Your task to perform on an android device: Clear all items from cart on costco. Search for sony triple a on costco, select the first entry, add it to the cart, then select checkout. Image 0: 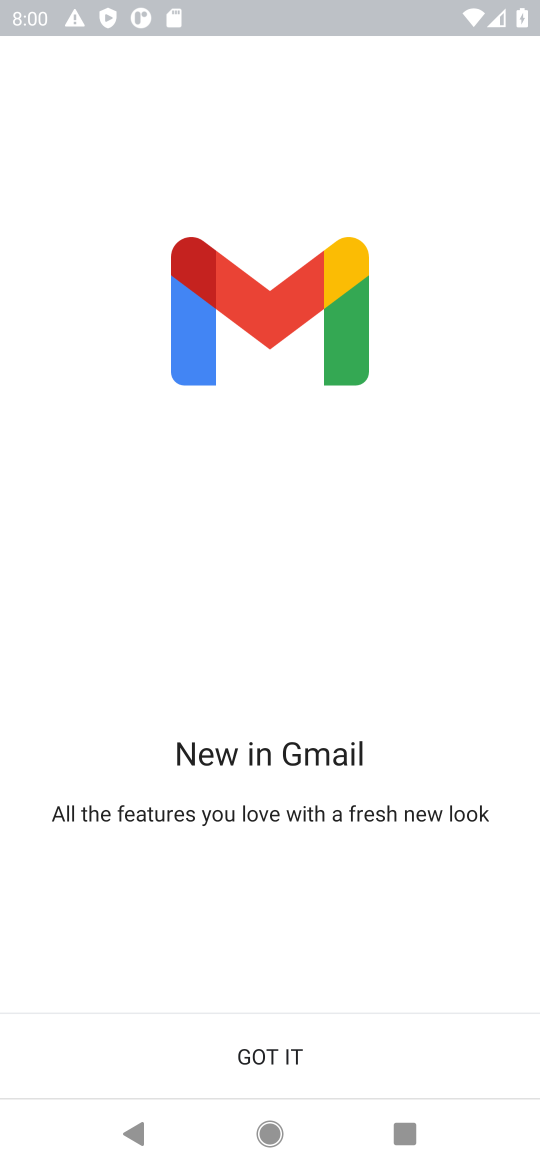
Step 0: click (319, 1030)
Your task to perform on an android device: Clear all items from cart on costco. Search for sony triple a on costco, select the first entry, add it to the cart, then select checkout. Image 1: 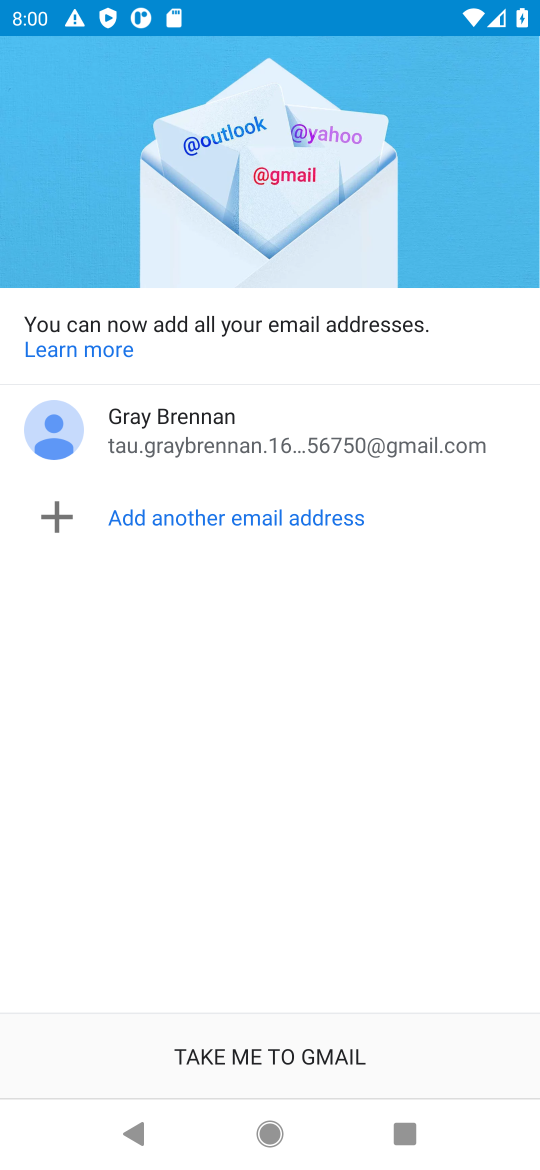
Step 1: press home button
Your task to perform on an android device: Clear all items from cart on costco. Search for sony triple a on costco, select the first entry, add it to the cart, then select checkout. Image 2: 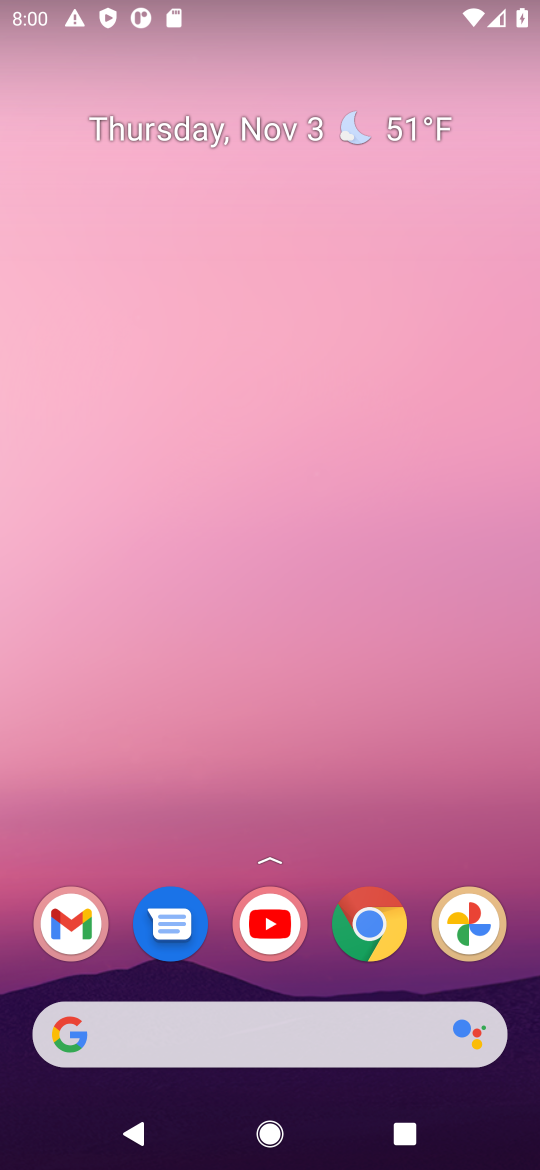
Step 2: drag from (257, 976) to (246, 162)
Your task to perform on an android device: Clear all items from cart on costco. Search for sony triple a on costco, select the first entry, add it to the cart, then select checkout. Image 3: 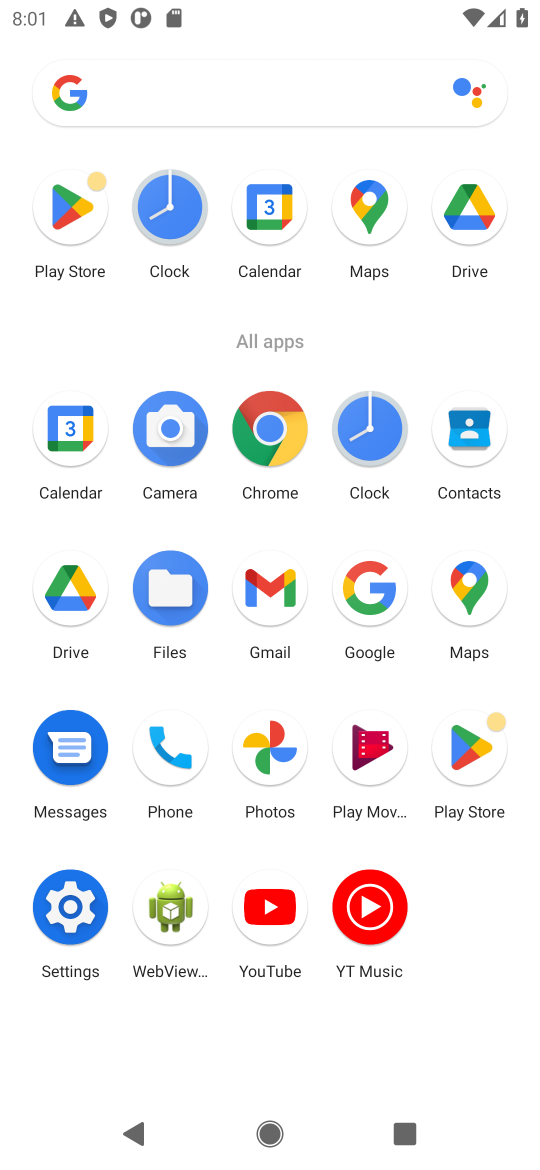
Step 3: click (358, 577)
Your task to perform on an android device: Clear all items from cart on costco. Search for sony triple a on costco, select the first entry, add it to the cart, then select checkout. Image 4: 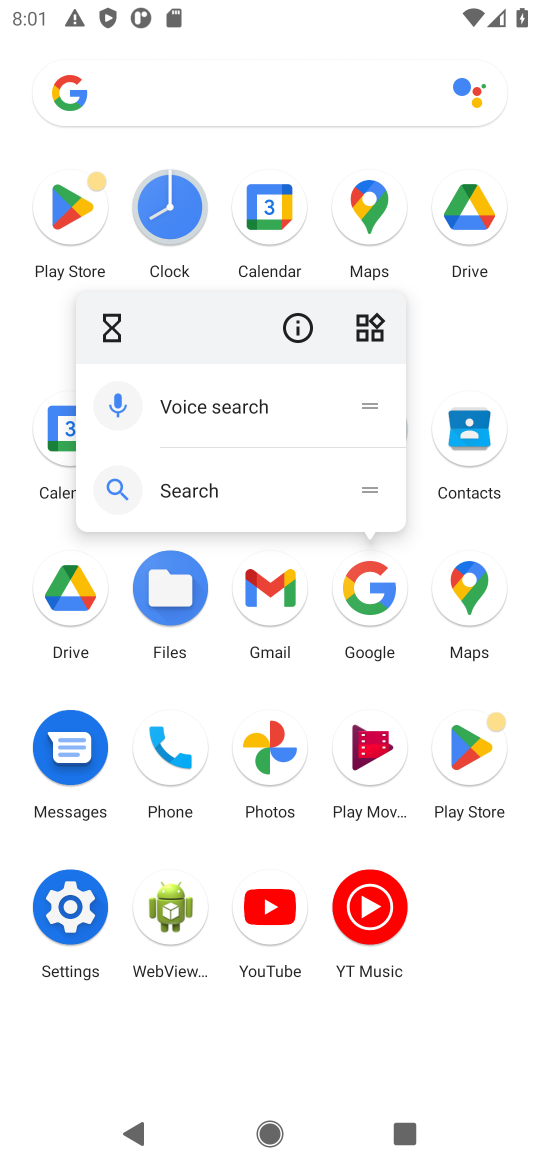
Step 4: click (358, 577)
Your task to perform on an android device: Clear all items from cart on costco. Search for sony triple a on costco, select the first entry, add it to the cart, then select checkout. Image 5: 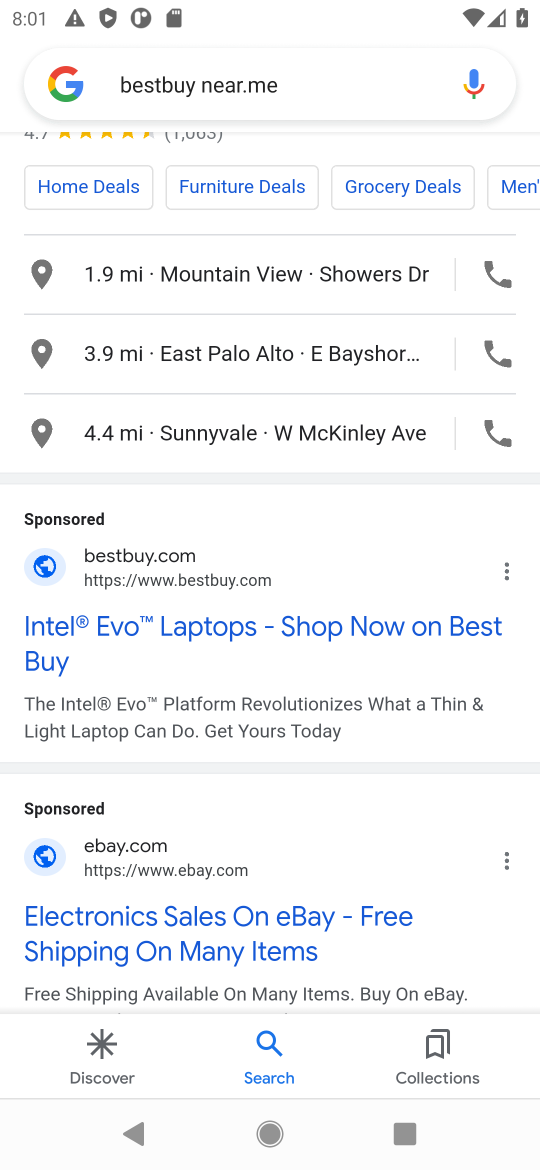
Step 5: click (168, 68)
Your task to perform on an android device: Clear all items from cart on costco. Search for sony triple a on costco, select the first entry, add it to the cart, then select checkout. Image 6: 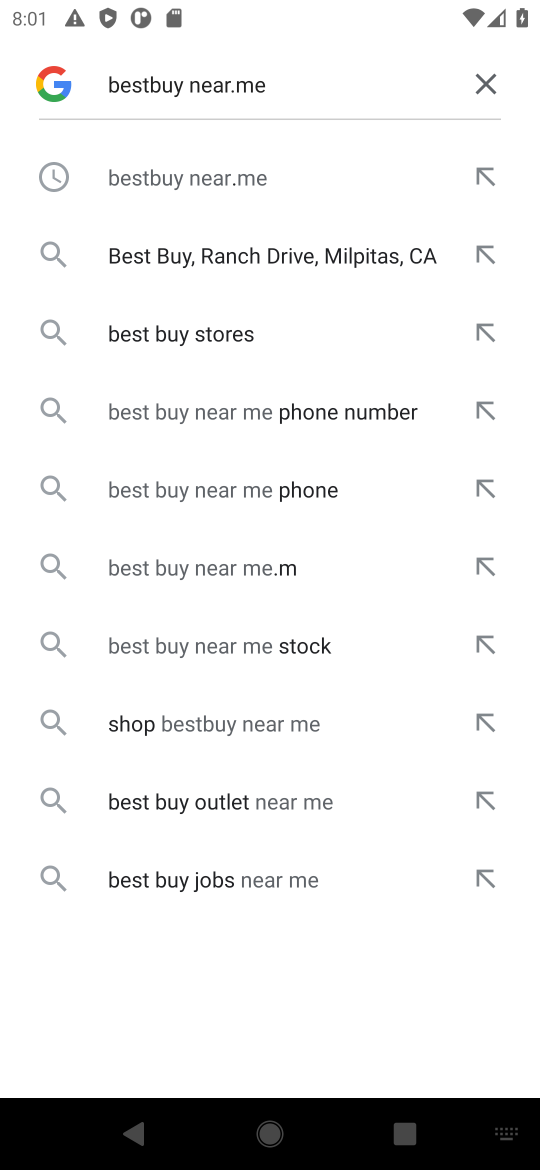
Step 6: click (495, 71)
Your task to perform on an android device: Clear all items from cart on costco. Search for sony triple a on costco, select the first entry, add it to the cart, then select checkout. Image 7: 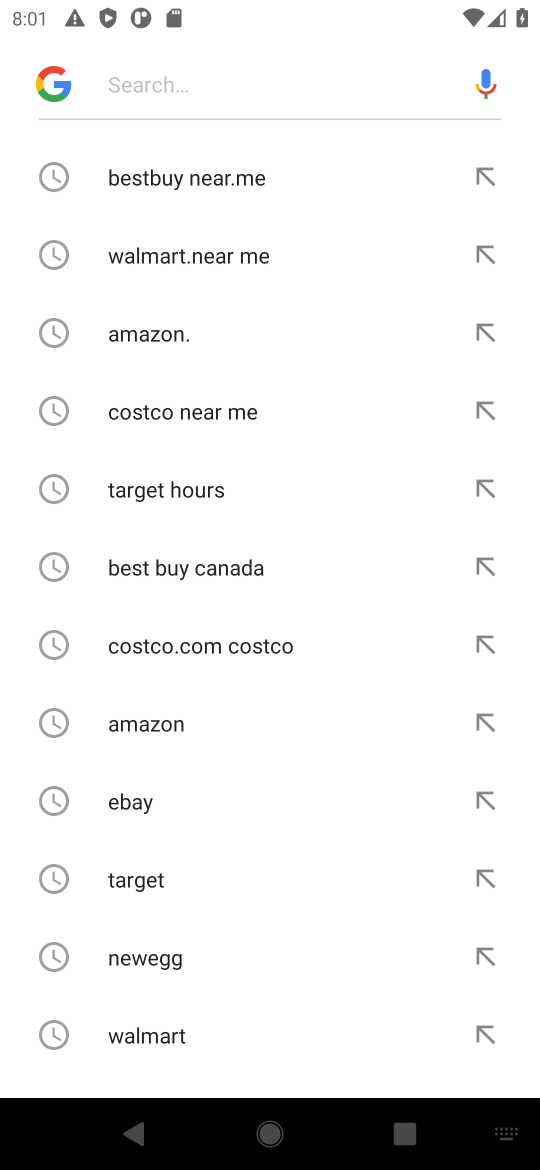
Step 7: click (149, 76)
Your task to perform on an android device: Clear all items from cart on costco. Search for sony triple a on costco, select the first entry, add it to the cart, then select checkout. Image 8: 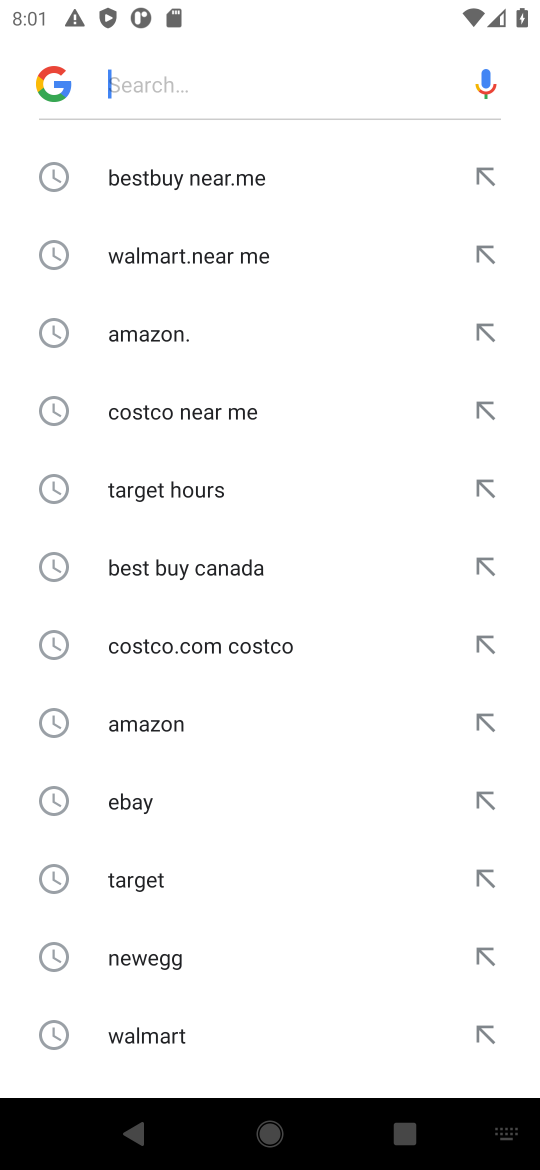
Step 8: type "costco "
Your task to perform on an android device: Clear all items from cart on costco. Search for sony triple a on costco, select the first entry, add it to the cart, then select checkout. Image 9: 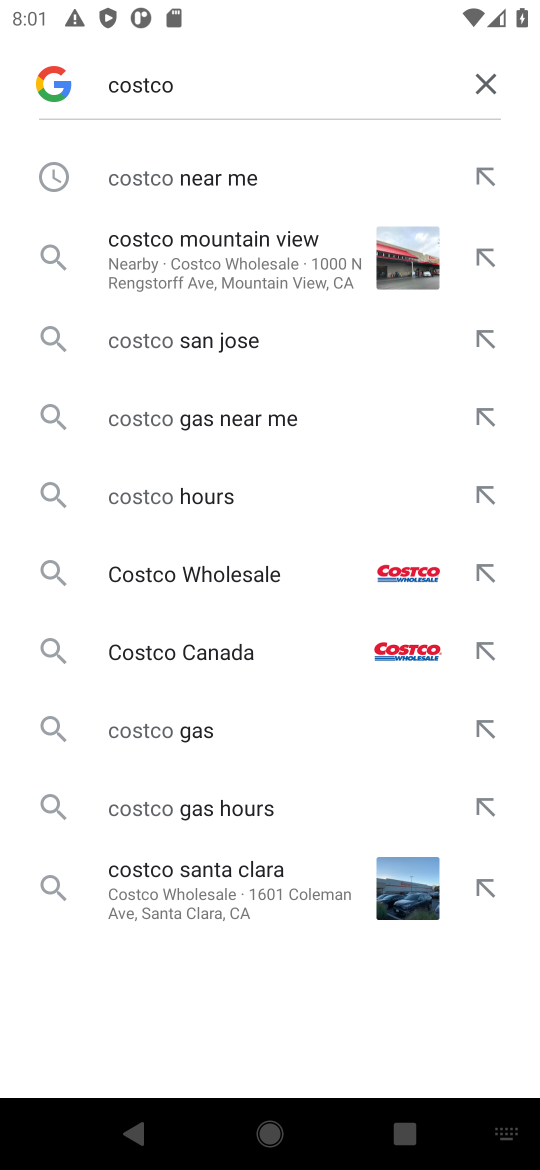
Step 9: click (151, 189)
Your task to perform on an android device: Clear all items from cart on costco. Search for sony triple a on costco, select the first entry, add it to the cart, then select checkout. Image 10: 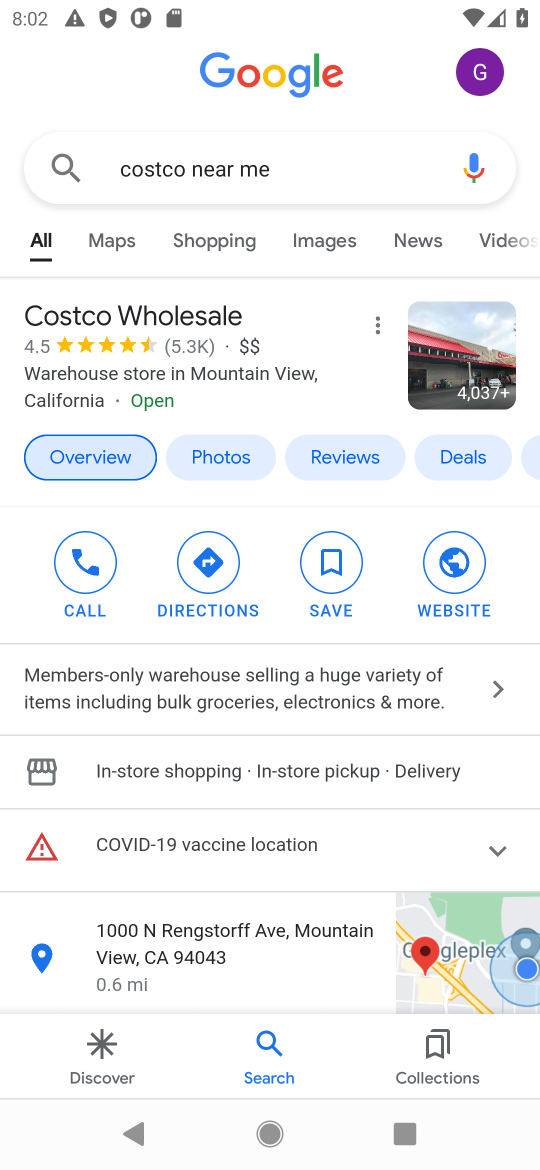
Step 10: drag from (250, 896) to (275, 421)
Your task to perform on an android device: Clear all items from cart on costco. Search for sony triple a on costco, select the first entry, add it to the cart, then select checkout. Image 11: 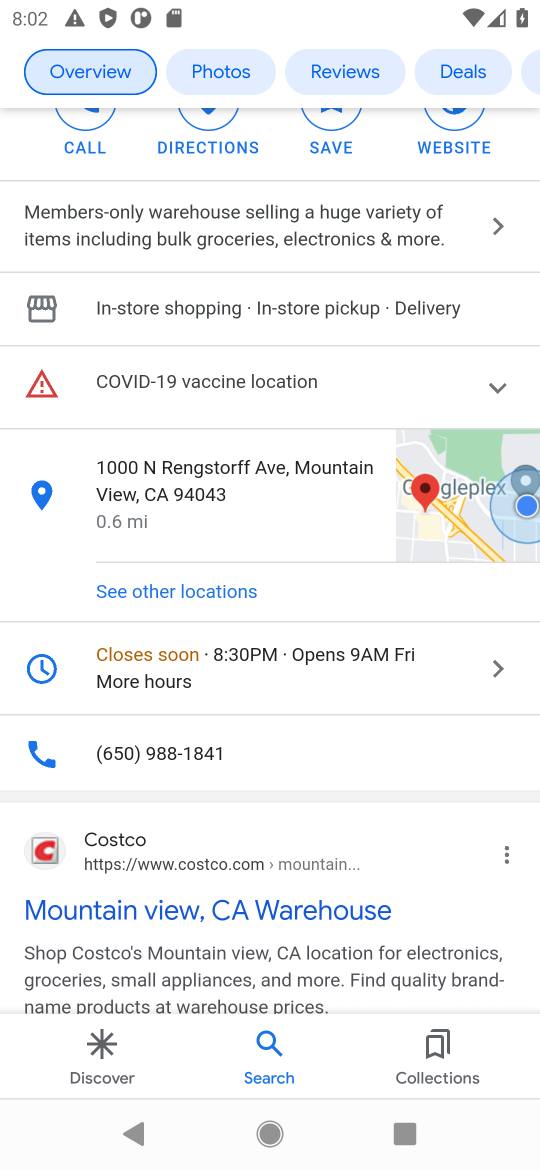
Step 11: click (47, 846)
Your task to perform on an android device: Clear all items from cart on costco. Search for sony triple a on costco, select the first entry, add it to the cart, then select checkout. Image 12: 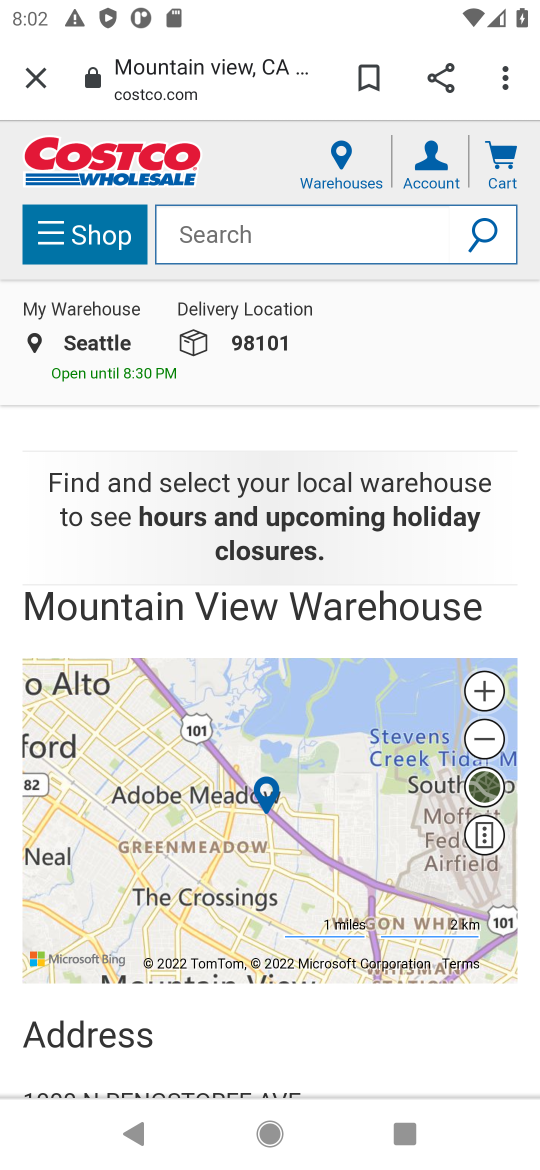
Step 12: click (272, 227)
Your task to perform on an android device: Clear all items from cart on costco. Search for sony triple a on costco, select the first entry, add it to the cart, then select checkout. Image 13: 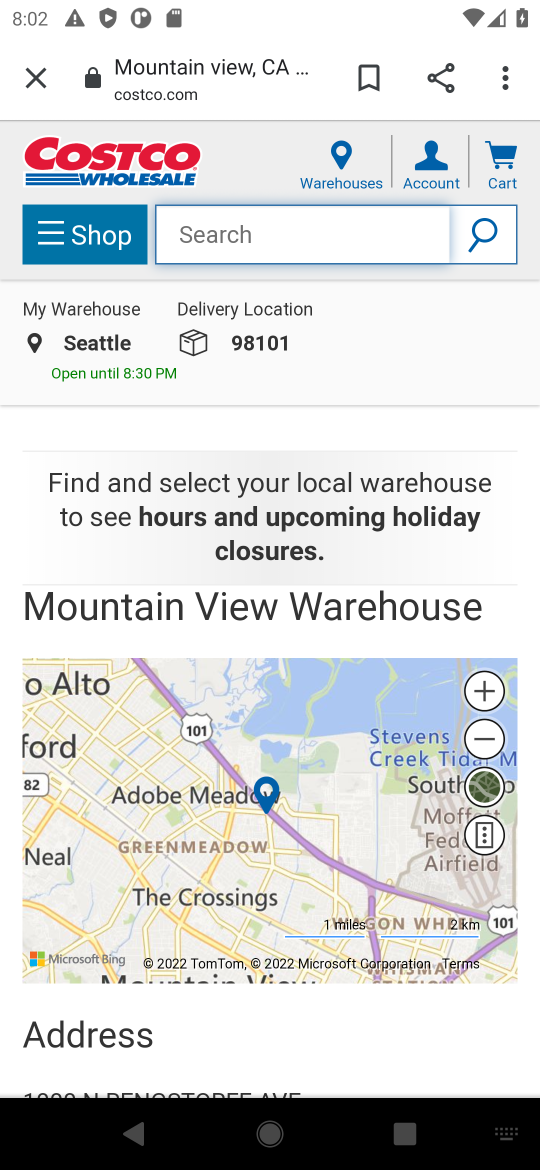
Step 13: click (278, 226)
Your task to perform on an android device: Clear all items from cart on costco. Search for sony triple a on costco, select the first entry, add it to the cart, then select checkout. Image 14: 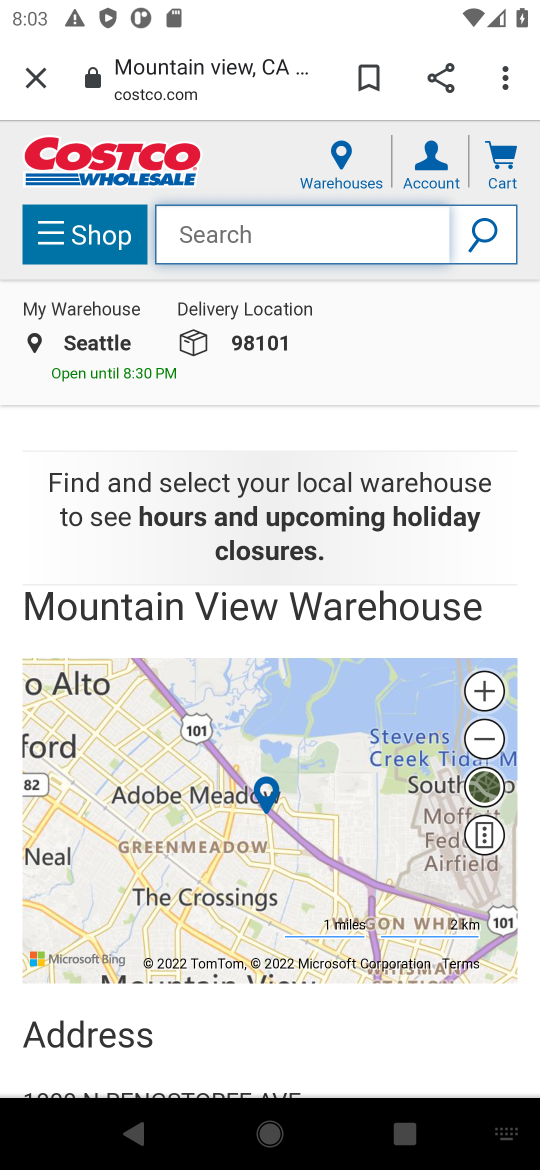
Step 14: type "sony triple  "
Your task to perform on an android device: Clear all items from cart on costco. Search for sony triple a on costco, select the first entry, add it to the cart, then select checkout. Image 15: 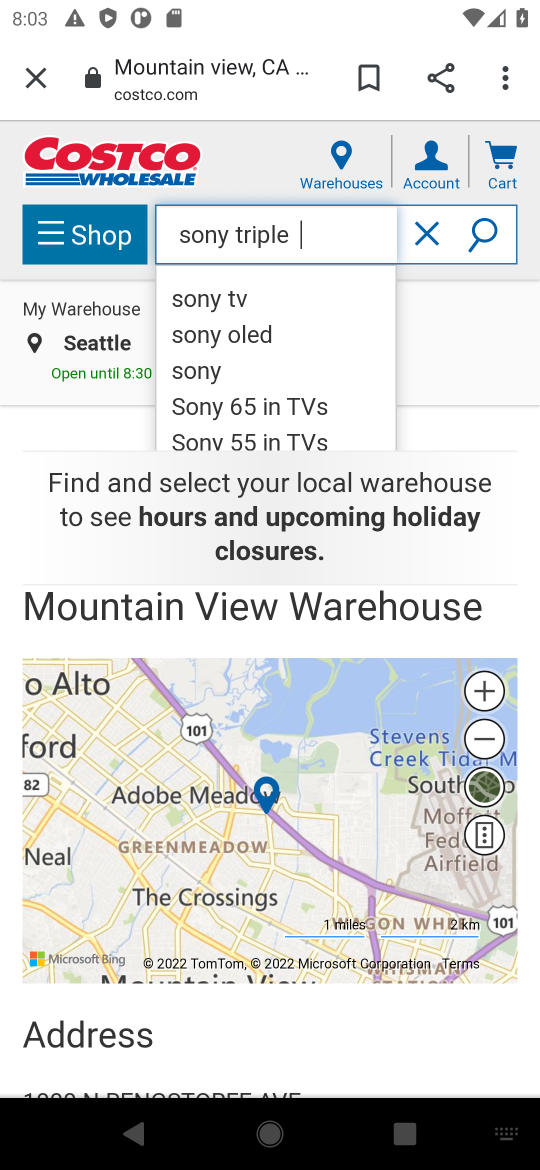
Step 15: click (488, 231)
Your task to perform on an android device: Clear all items from cart on costco. Search for sony triple a on costco, select the first entry, add it to the cart, then select checkout. Image 16: 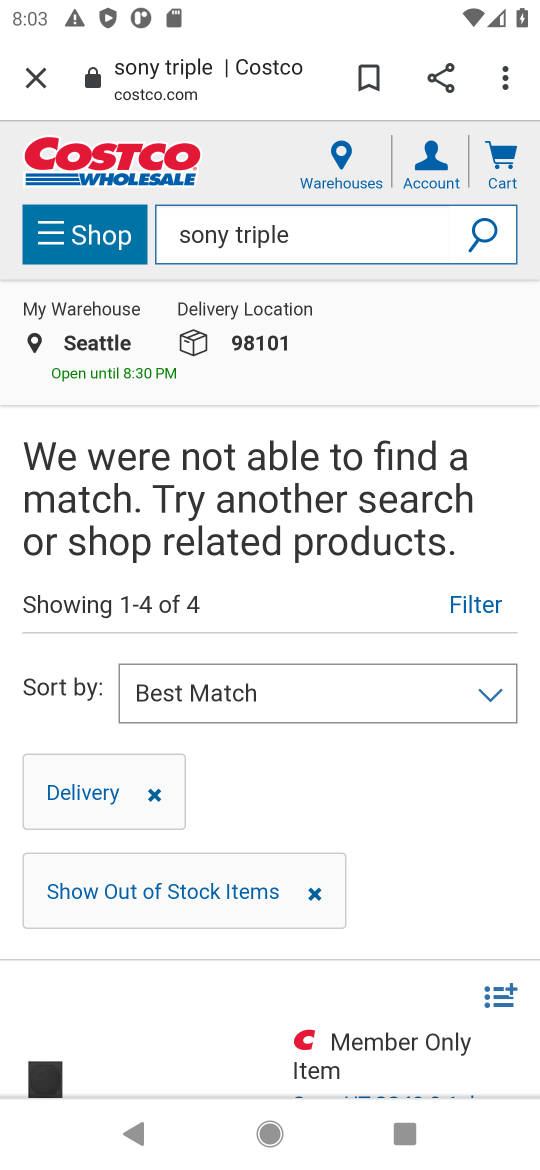
Step 16: drag from (323, 830) to (344, 281)
Your task to perform on an android device: Clear all items from cart on costco. Search for sony triple a on costco, select the first entry, add it to the cart, then select checkout. Image 17: 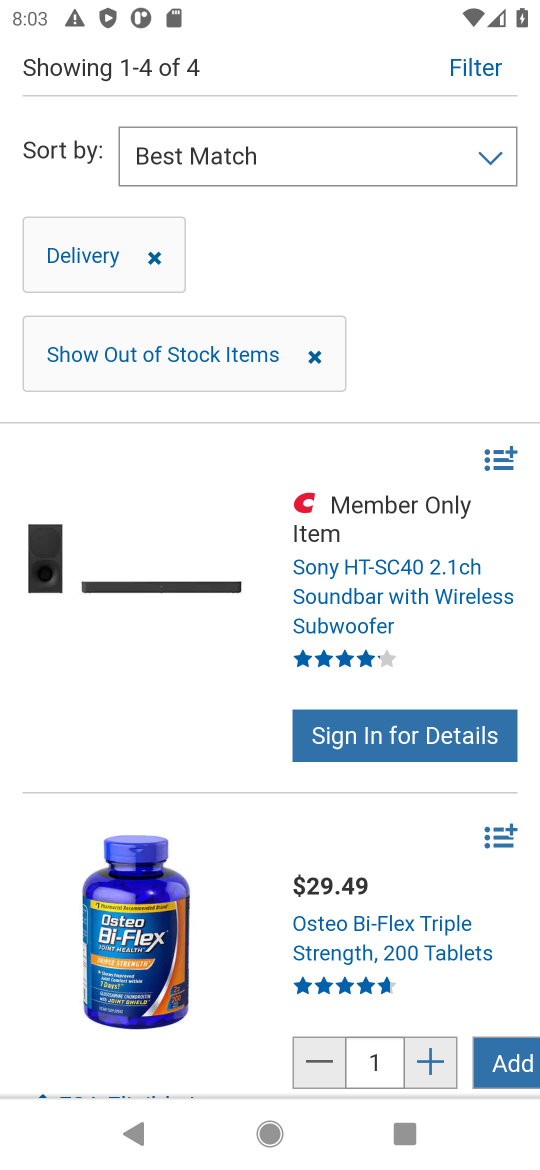
Step 17: drag from (348, 913) to (291, 306)
Your task to perform on an android device: Clear all items from cart on costco. Search for sony triple a on costco, select the first entry, add it to the cart, then select checkout. Image 18: 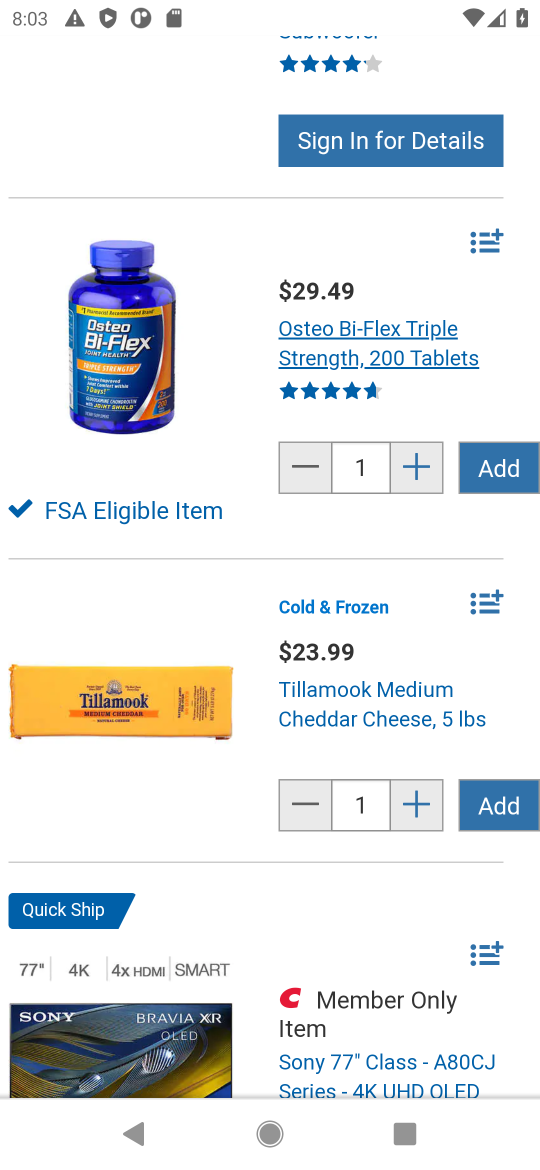
Step 18: drag from (327, 904) to (321, 144)
Your task to perform on an android device: Clear all items from cart on costco. Search for sony triple a on costco, select the first entry, add it to the cart, then select checkout. Image 19: 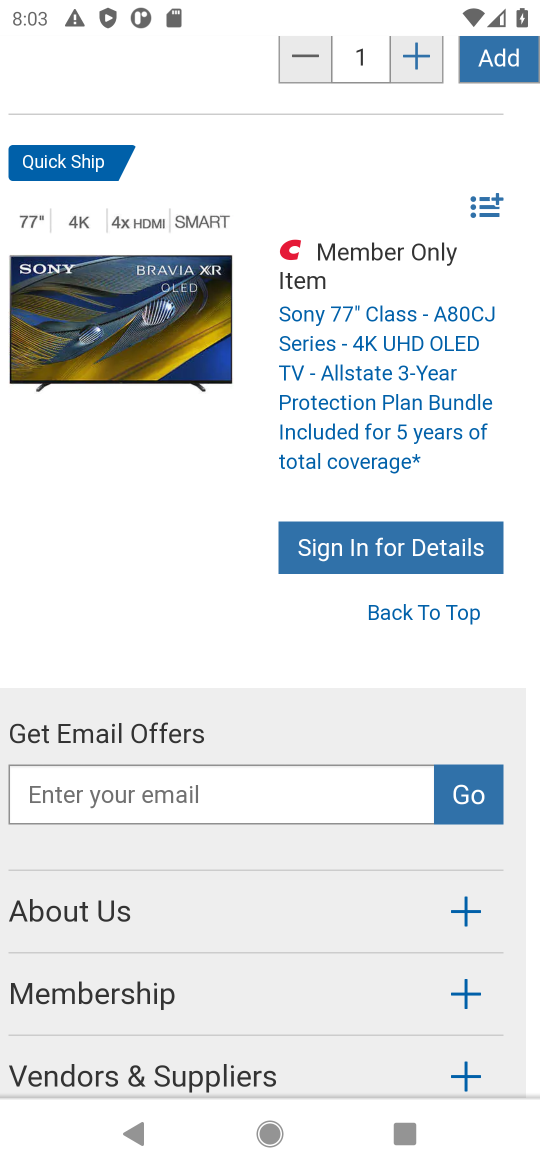
Step 19: drag from (320, 250) to (314, 417)
Your task to perform on an android device: Clear all items from cart on costco. Search for sony triple a on costco, select the first entry, add it to the cart, then select checkout. Image 20: 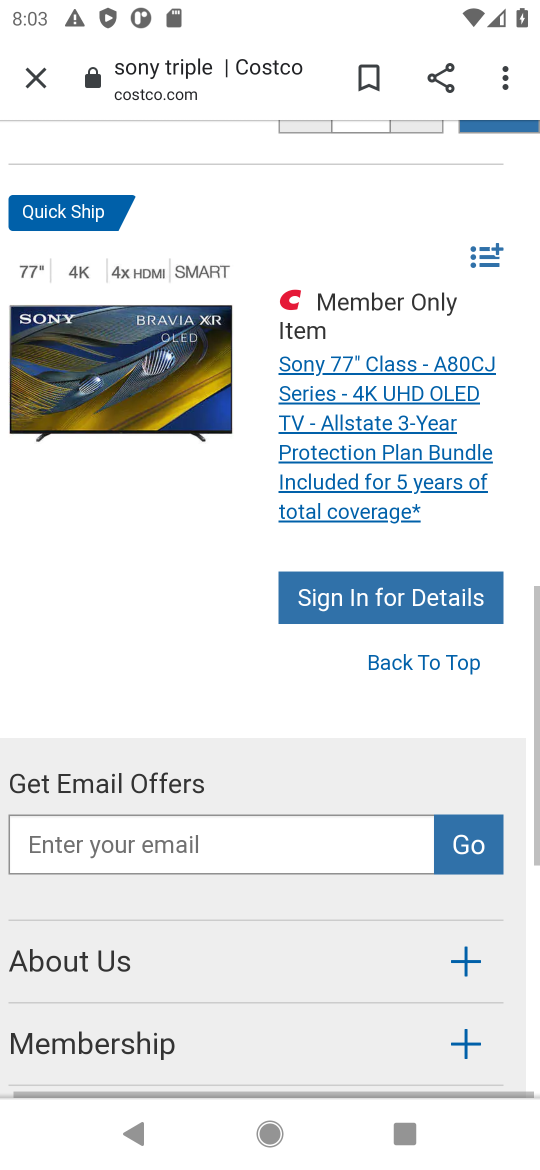
Step 20: click (317, 623)
Your task to perform on an android device: Clear all items from cart on costco. Search for sony triple a on costco, select the first entry, add it to the cart, then select checkout. Image 21: 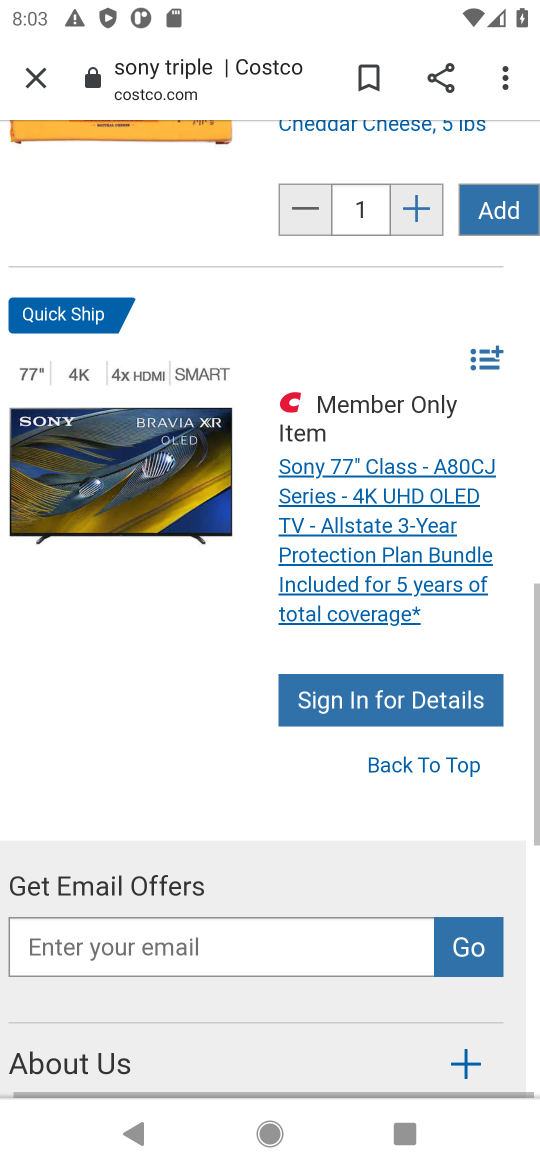
Step 21: task complete